Your task to perform on an android device: Do I have any events tomorrow? Image 0: 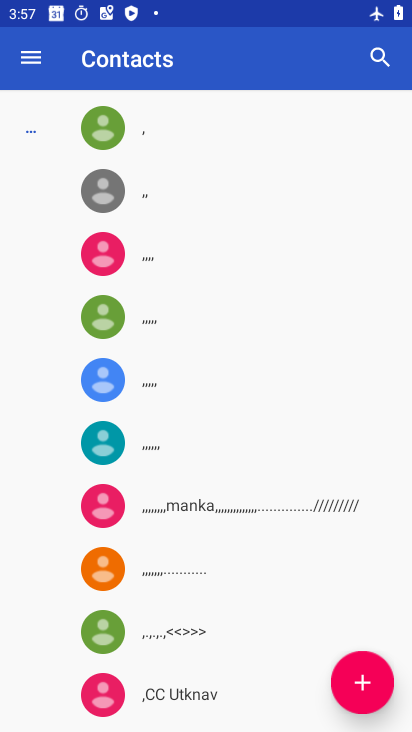
Step 0: press home button
Your task to perform on an android device: Do I have any events tomorrow? Image 1: 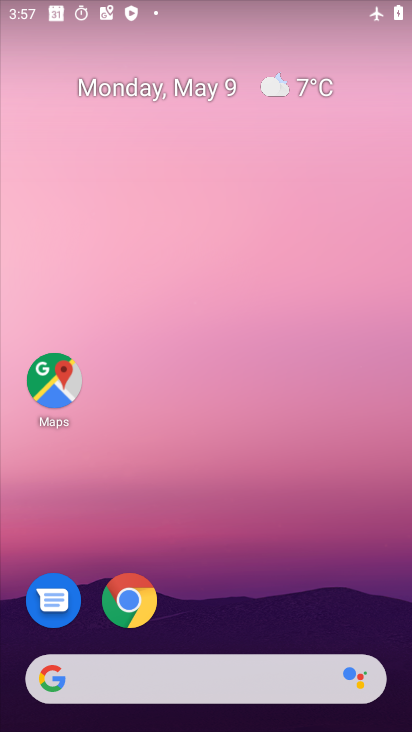
Step 1: drag from (247, 381) to (192, 113)
Your task to perform on an android device: Do I have any events tomorrow? Image 2: 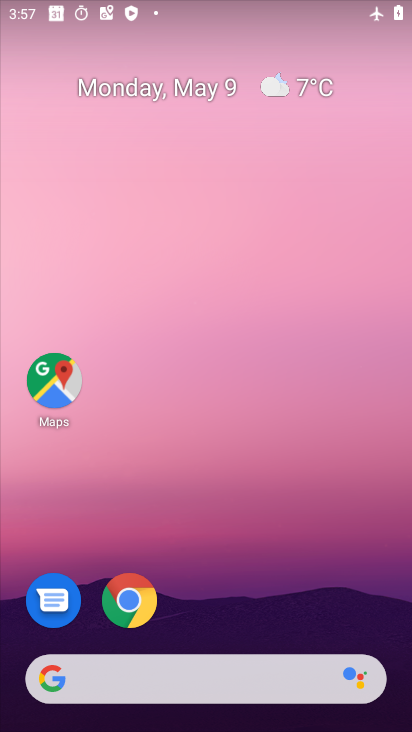
Step 2: drag from (281, 612) to (271, 138)
Your task to perform on an android device: Do I have any events tomorrow? Image 3: 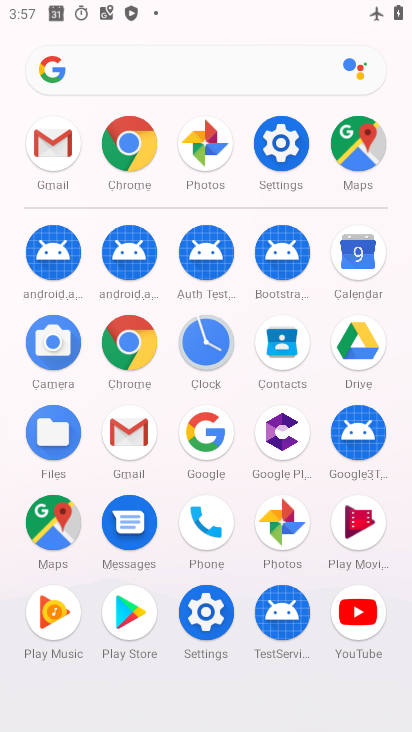
Step 3: click (358, 263)
Your task to perform on an android device: Do I have any events tomorrow? Image 4: 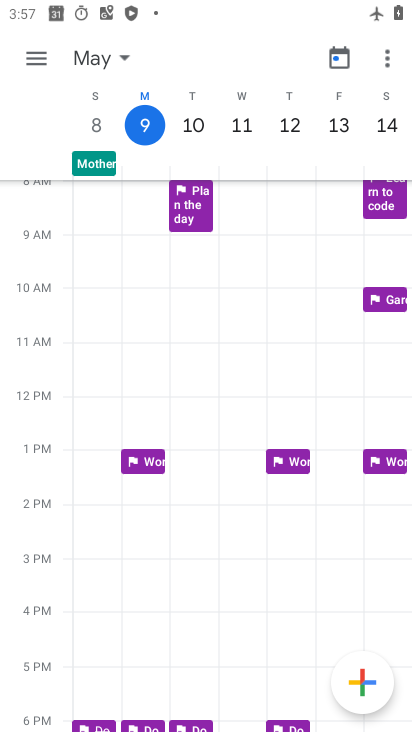
Step 4: click (187, 123)
Your task to perform on an android device: Do I have any events tomorrow? Image 5: 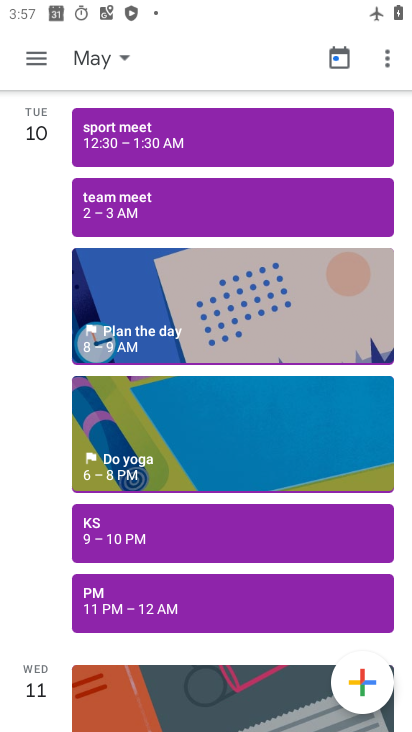
Step 5: task complete